Your task to perform on an android device: Open calendar and show me the fourth week of next month Image 0: 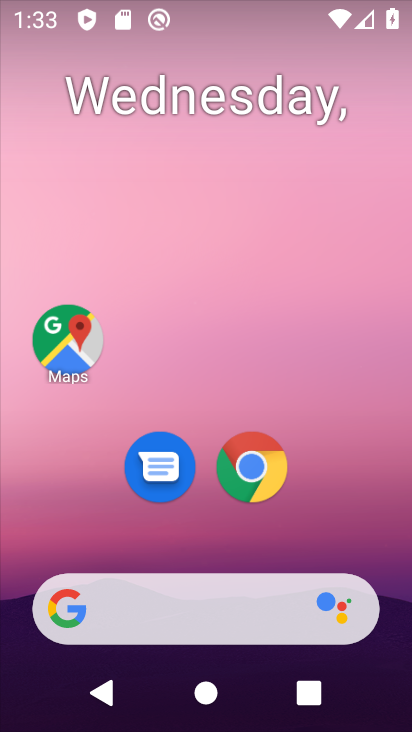
Step 0: drag from (331, 538) to (162, 4)
Your task to perform on an android device: Open calendar and show me the fourth week of next month Image 1: 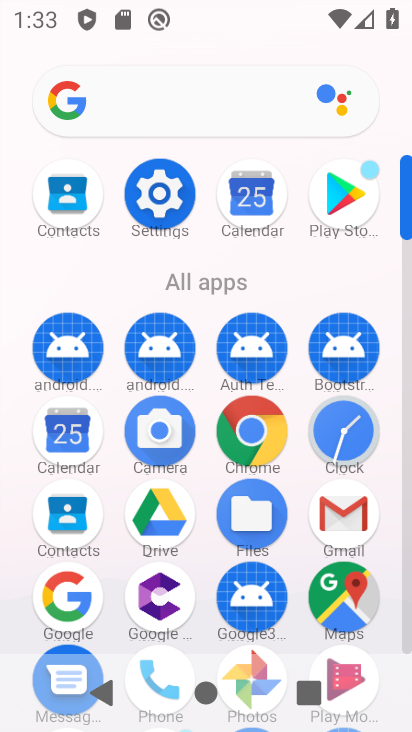
Step 1: click (67, 416)
Your task to perform on an android device: Open calendar and show me the fourth week of next month Image 2: 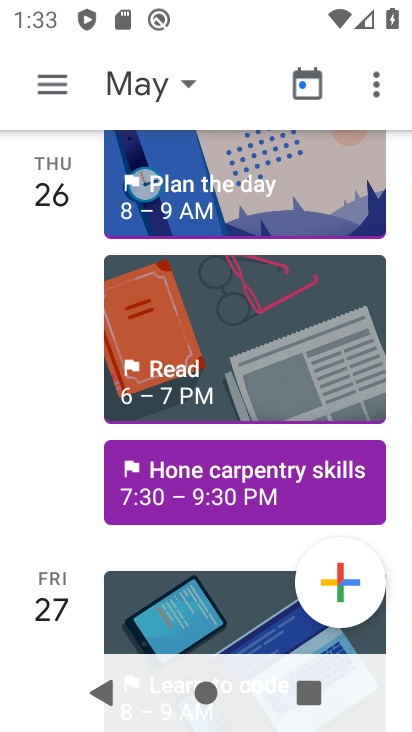
Step 2: click (57, 83)
Your task to perform on an android device: Open calendar and show me the fourth week of next month Image 3: 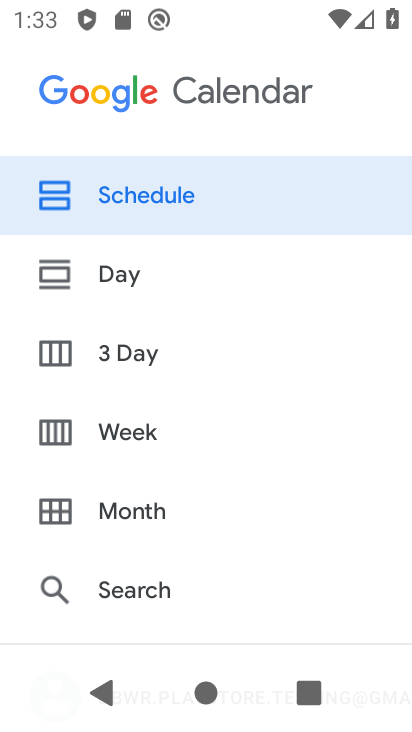
Step 3: click (138, 427)
Your task to perform on an android device: Open calendar and show me the fourth week of next month Image 4: 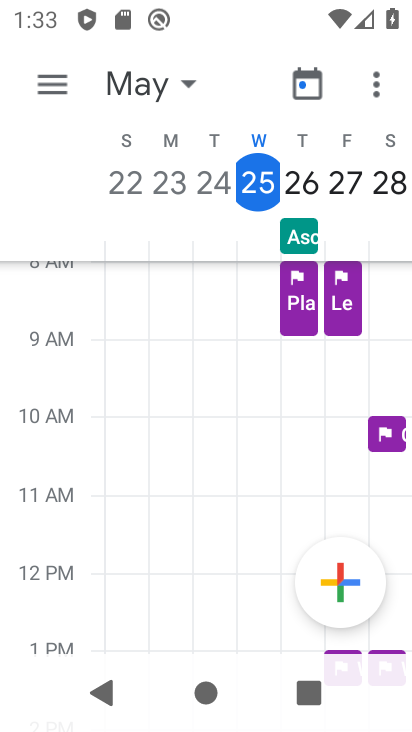
Step 4: click (188, 81)
Your task to perform on an android device: Open calendar and show me the fourth week of next month Image 5: 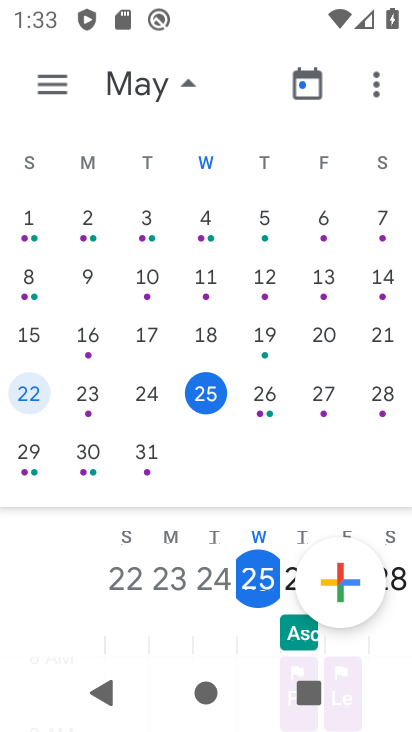
Step 5: drag from (358, 349) to (0, 338)
Your task to perform on an android device: Open calendar and show me the fourth week of next month Image 6: 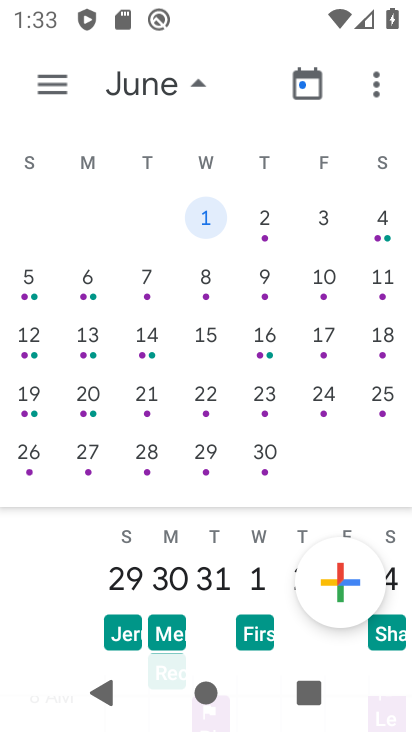
Step 6: click (42, 382)
Your task to perform on an android device: Open calendar and show me the fourth week of next month Image 7: 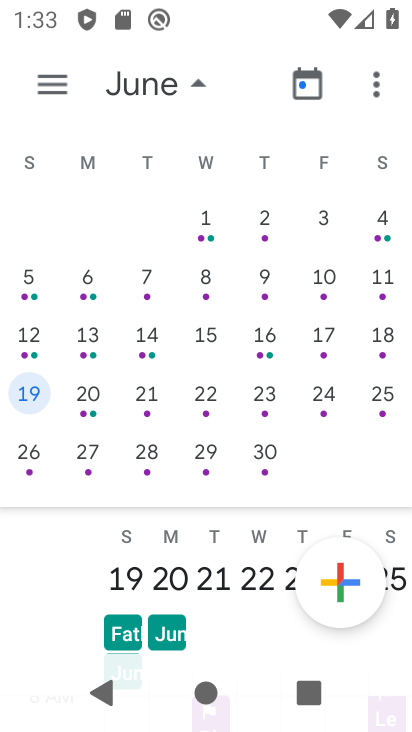
Step 7: task complete